Your task to perform on an android device: read, delete, or share a saved page in the chrome app Image 0: 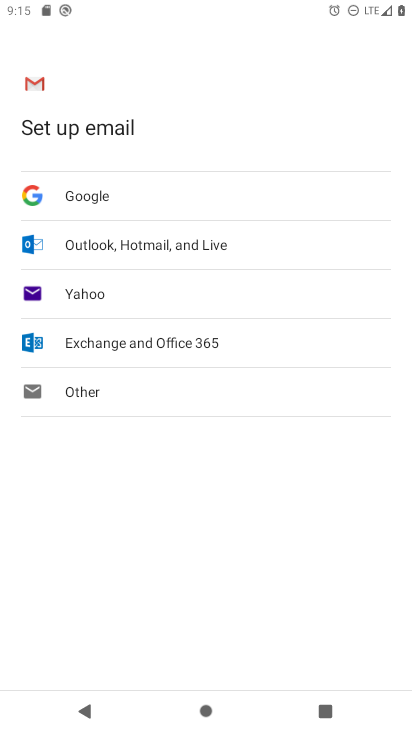
Step 0: press home button
Your task to perform on an android device: read, delete, or share a saved page in the chrome app Image 1: 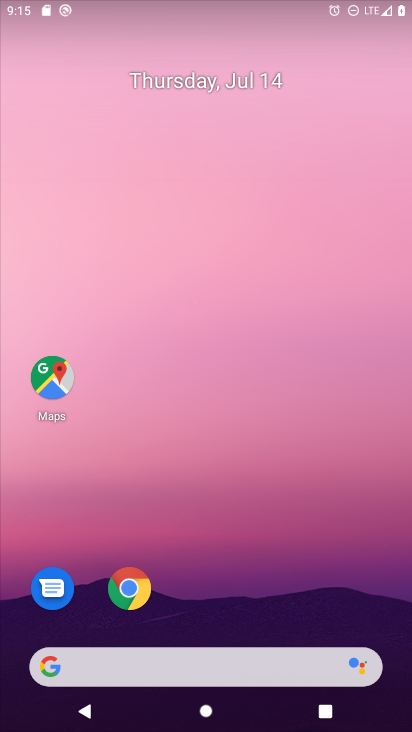
Step 1: drag from (357, 610) to (308, 85)
Your task to perform on an android device: read, delete, or share a saved page in the chrome app Image 2: 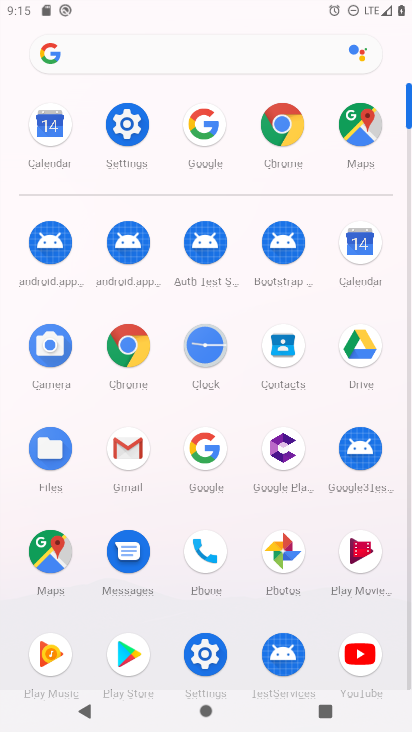
Step 2: click (294, 127)
Your task to perform on an android device: read, delete, or share a saved page in the chrome app Image 3: 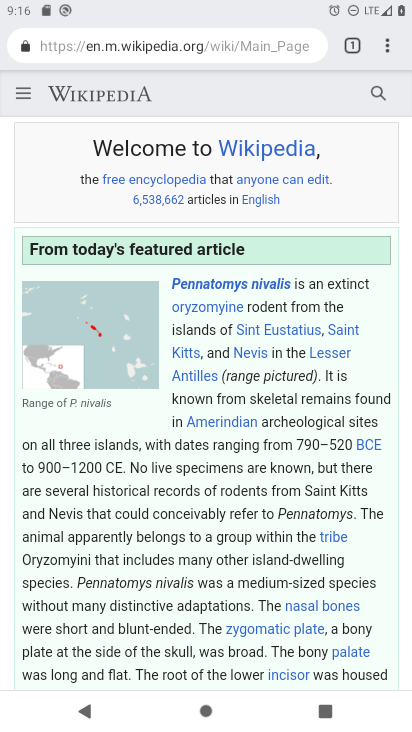
Step 3: drag from (391, 41) to (226, 293)
Your task to perform on an android device: read, delete, or share a saved page in the chrome app Image 4: 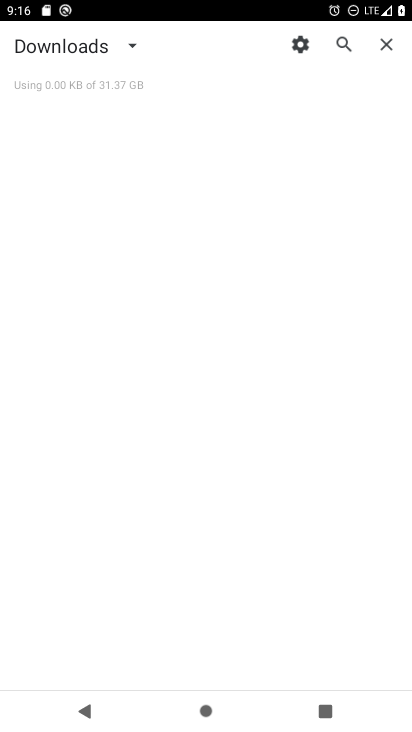
Step 4: click (121, 40)
Your task to perform on an android device: read, delete, or share a saved page in the chrome app Image 5: 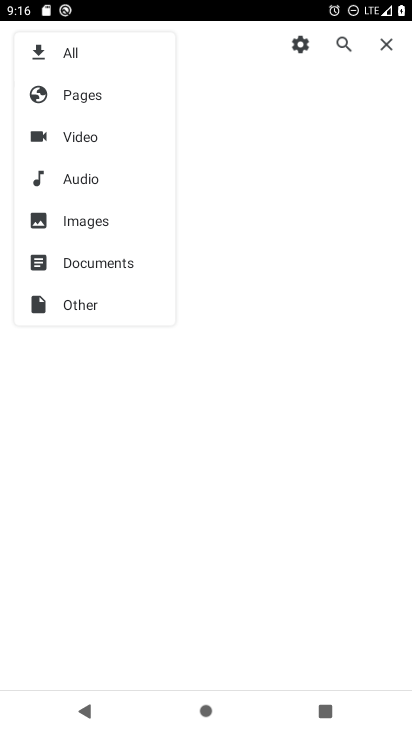
Step 5: click (93, 99)
Your task to perform on an android device: read, delete, or share a saved page in the chrome app Image 6: 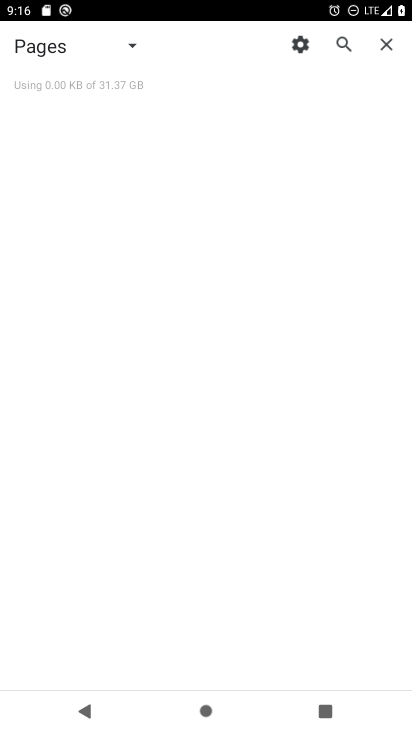
Step 6: task complete